Your task to perform on an android device: see creations saved in the google photos Image 0: 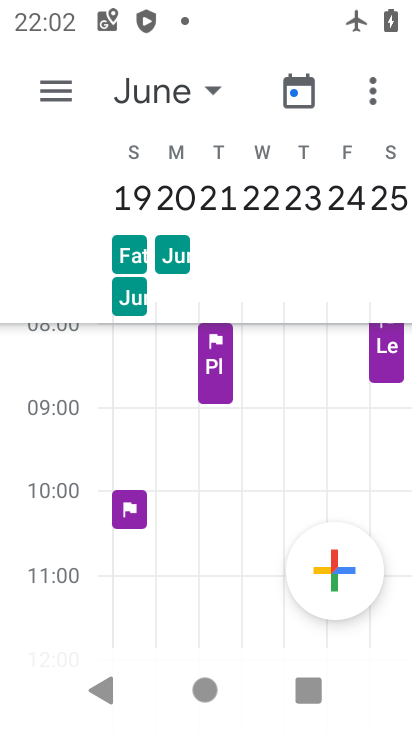
Step 0: press home button
Your task to perform on an android device: see creations saved in the google photos Image 1: 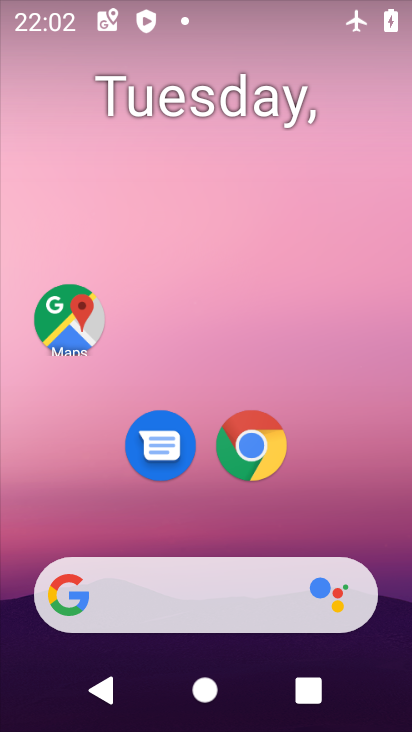
Step 1: drag from (348, 501) to (244, 27)
Your task to perform on an android device: see creations saved in the google photos Image 2: 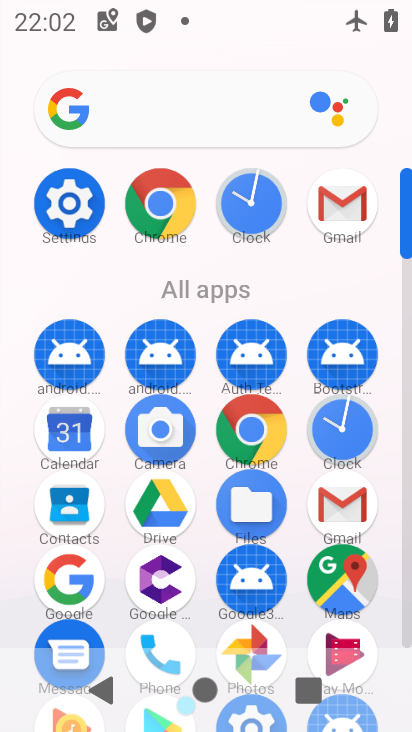
Step 2: click (269, 635)
Your task to perform on an android device: see creations saved in the google photos Image 3: 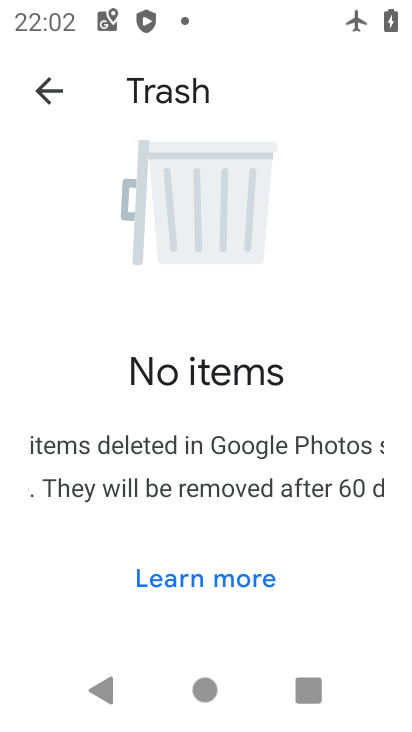
Step 3: click (34, 86)
Your task to perform on an android device: see creations saved in the google photos Image 4: 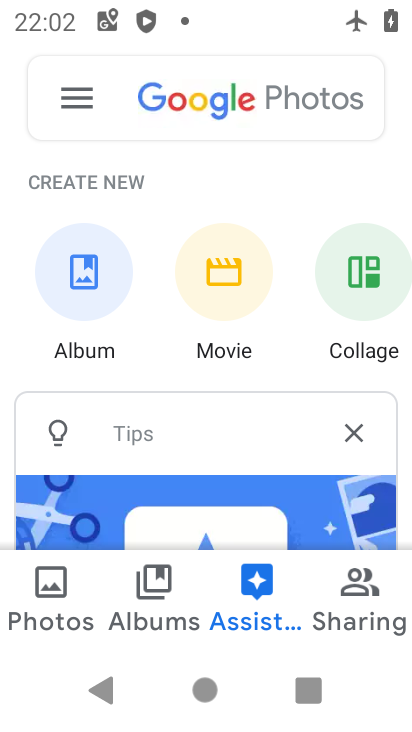
Step 4: click (143, 104)
Your task to perform on an android device: see creations saved in the google photos Image 5: 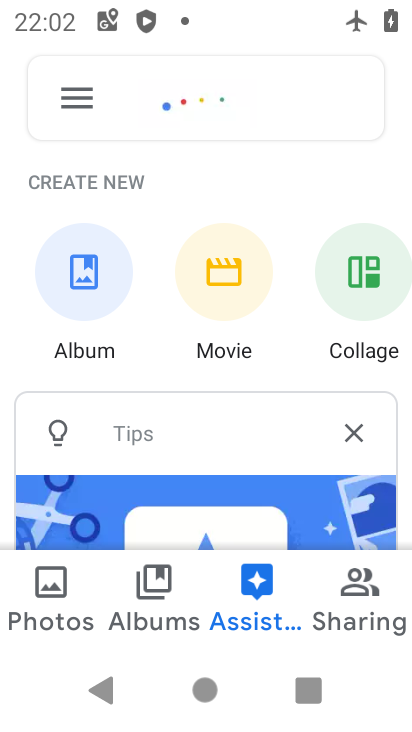
Step 5: click (143, 104)
Your task to perform on an android device: see creations saved in the google photos Image 6: 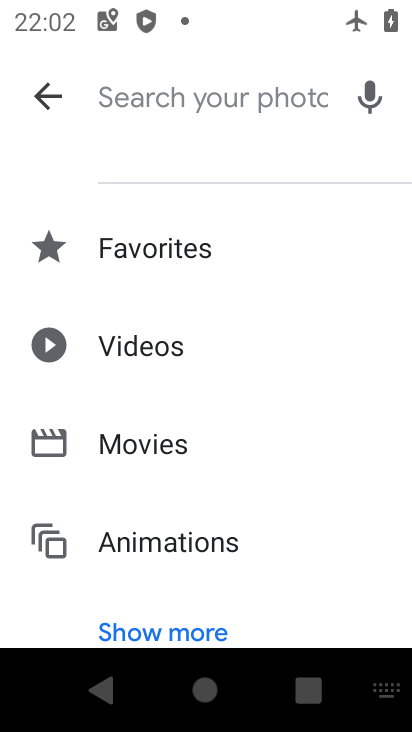
Step 6: click (169, 628)
Your task to perform on an android device: see creations saved in the google photos Image 7: 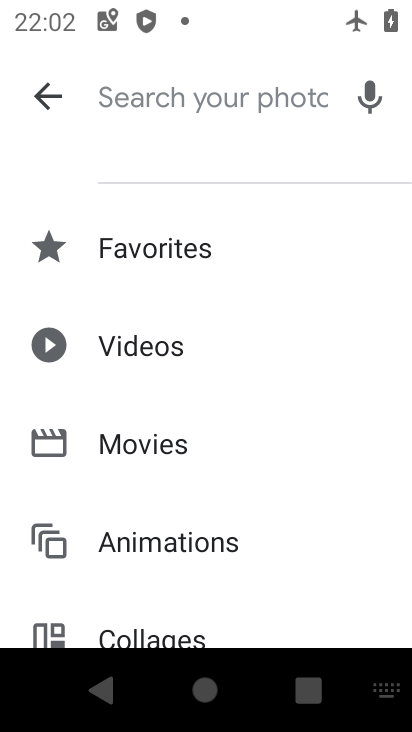
Step 7: drag from (169, 628) to (149, 267)
Your task to perform on an android device: see creations saved in the google photos Image 8: 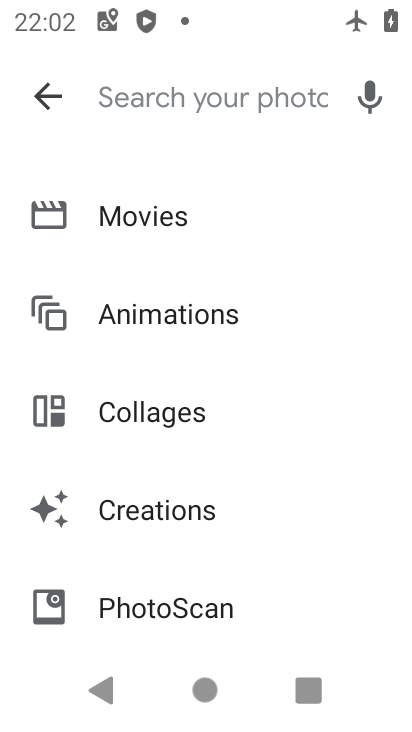
Step 8: drag from (149, 267) to (149, 532)
Your task to perform on an android device: see creations saved in the google photos Image 9: 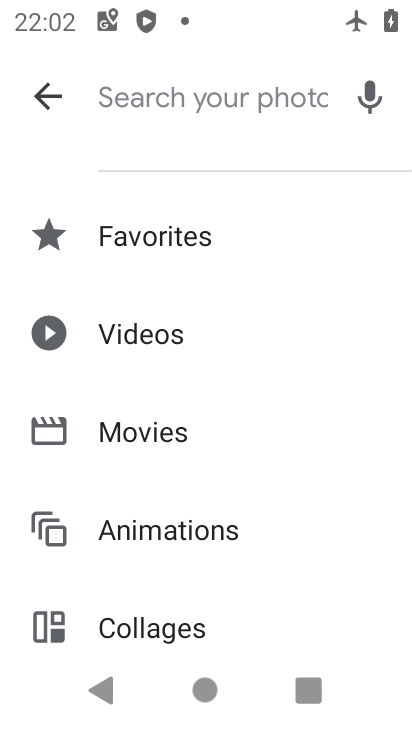
Step 9: drag from (171, 599) to (161, 201)
Your task to perform on an android device: see creations saved in the google photos Image 10: 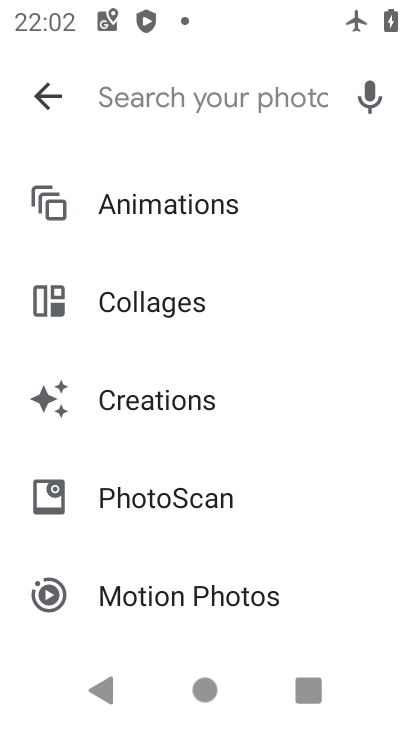
Step 10: click (230, 409)
Your task to perform on an android device: see creations saved in the google photos Image 11: 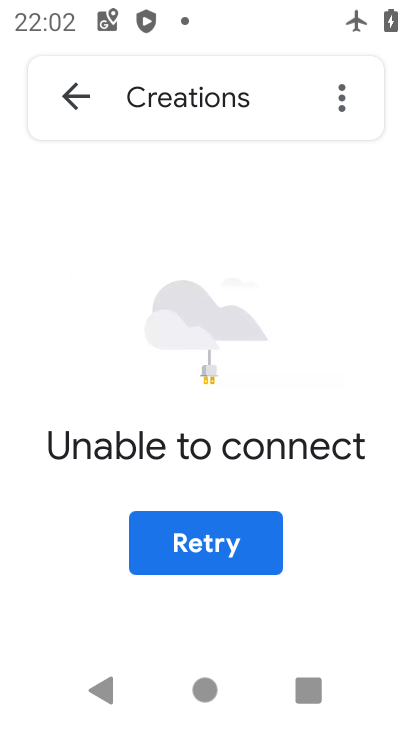
Step 11: task complete